Your task to perform on an android device: Open Google Chrome Image 0: 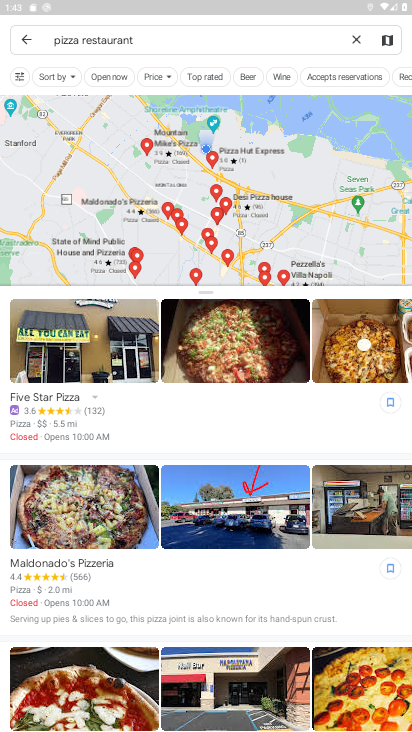
Step 0: press home button
Your task to perform on an android device: Open Google Chrome Image 1: 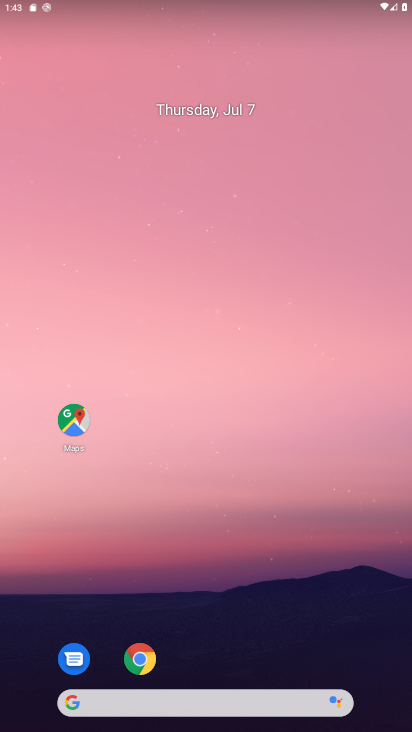
Step 1: click (141, 656)
Your task to perform on an android device: Open Google Chrome Image 2: 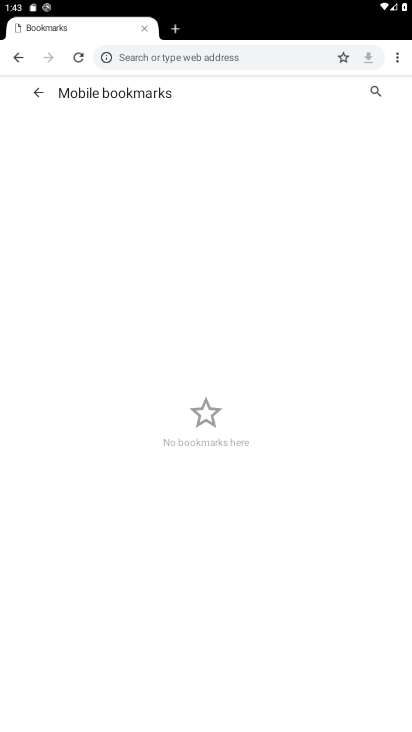
Step 2: click (172, 32)
Your task to perform on an android device: Open Google Chrome Image 3: 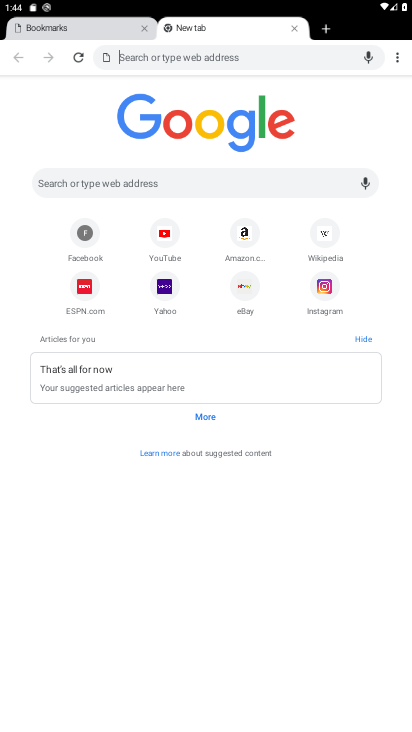
Step 3: task complete